Your task to perform on an android device: open a bookmark in the chrome app Image 0: 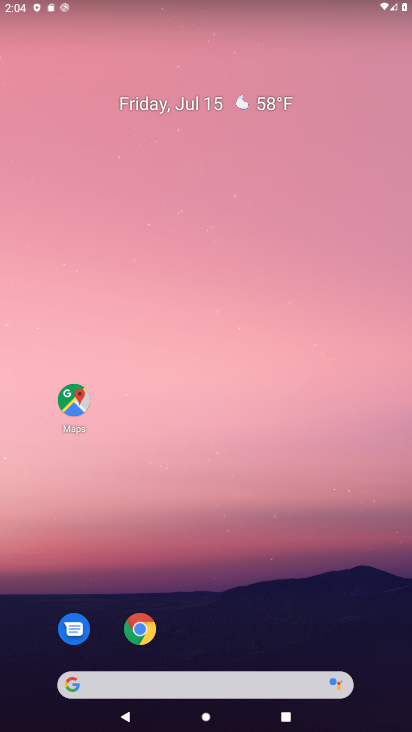
Step 0: click (147, 635)
Your task to perform on an android device: open a bookmark in the chrome app Image 1: 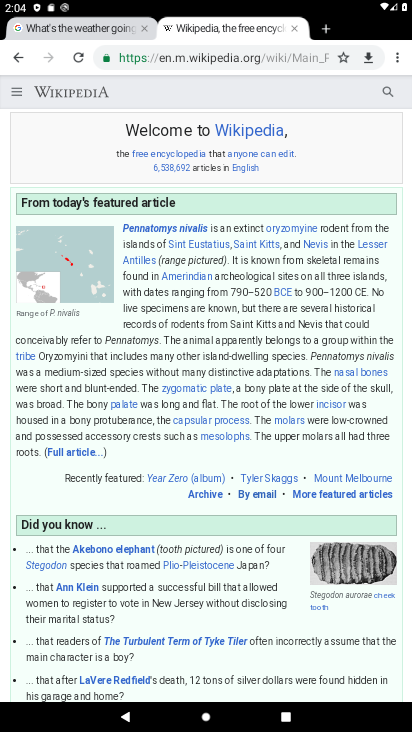
Step 1: click (397, 59)
Your task to perform on an android device: open a bookmark in the chrome app Image 2: 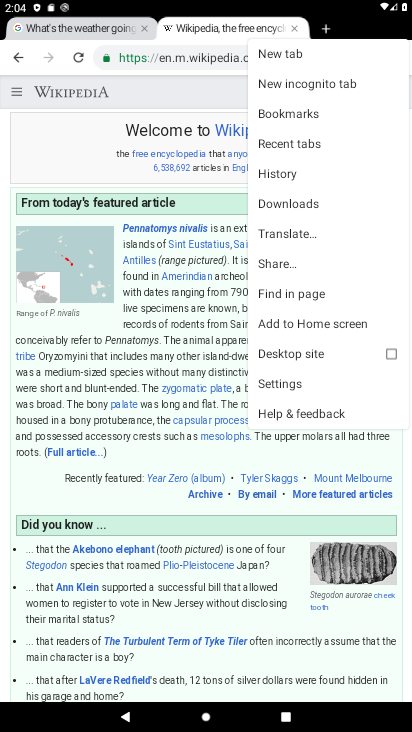
Step 2: click (319, 114)
Your task to perform on an android device: open a bookmark in the chrome app Image 3: 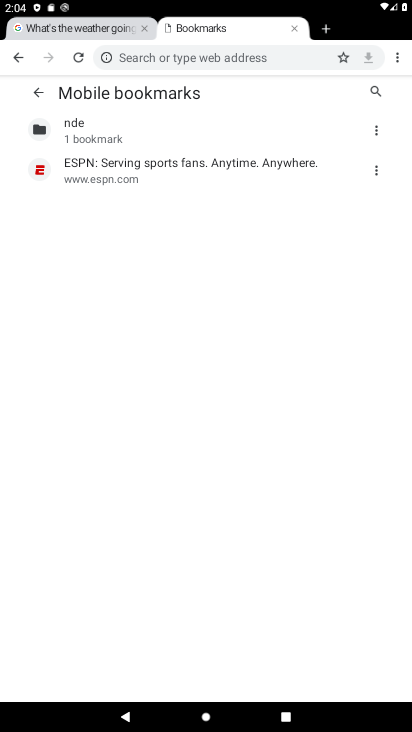
Step 3: click (241, 182)
Your task to perform on an android device: open a bookmark in the chrome app Image 4: 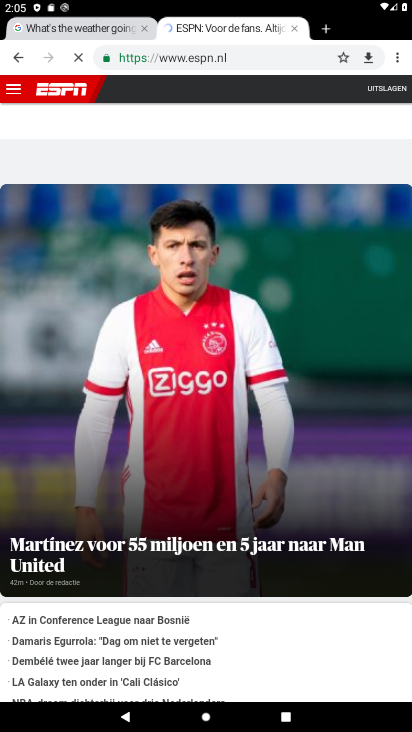
Step 4: task complete